Your task to perform on an android device: open chrome privacy settings Image 0: 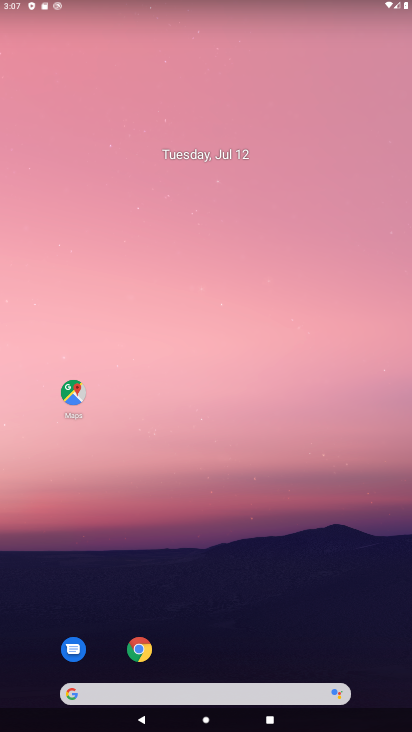
Step 0: drag from (238, 655) to (205, 95)
Your task to perform on an android device: open chrome privacy settings Image 1: 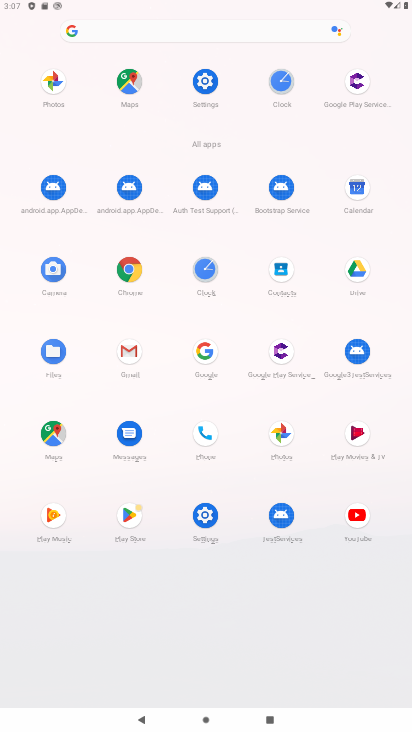
Step 1: click (125, 265)
Your task to perform on an android device: open chrome privacy settings Image 2: 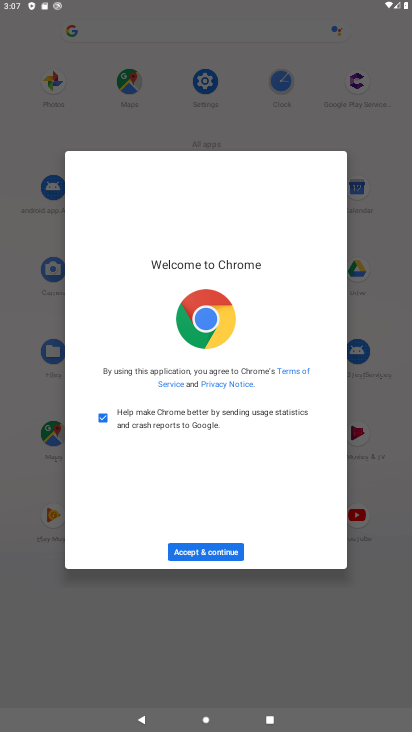
Step 2: click (198, 545)
Your task to perform on an android device: open chrome privacy settings Image 3: 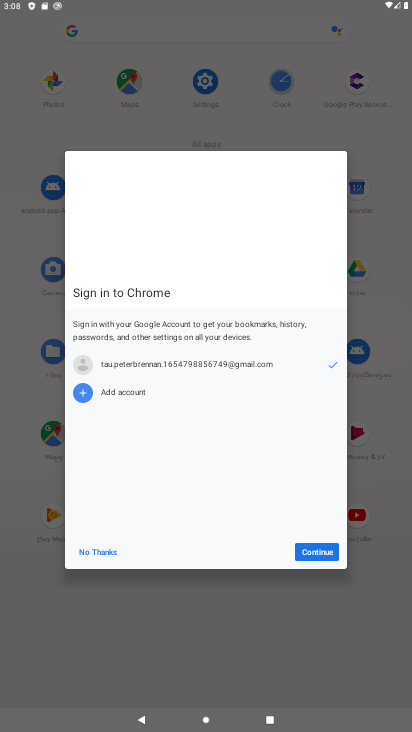
Step 3: click (316, 549)
Your task to perform on an android device: open chrome privacy settings Image 4: 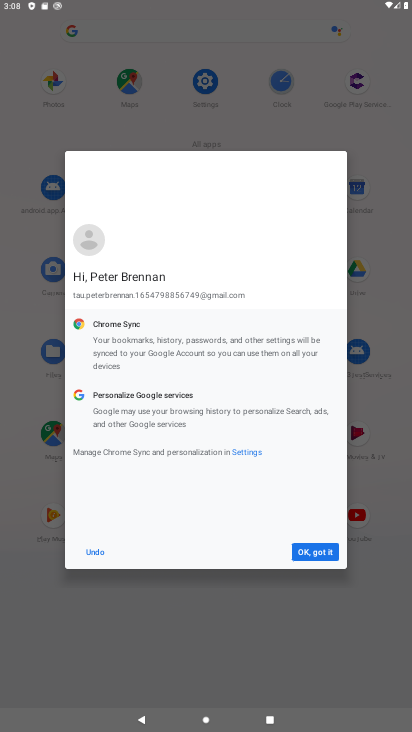
Step 4: click (316, 549)
Your task to perform on an android device: open chrome privacy settings Image 5: 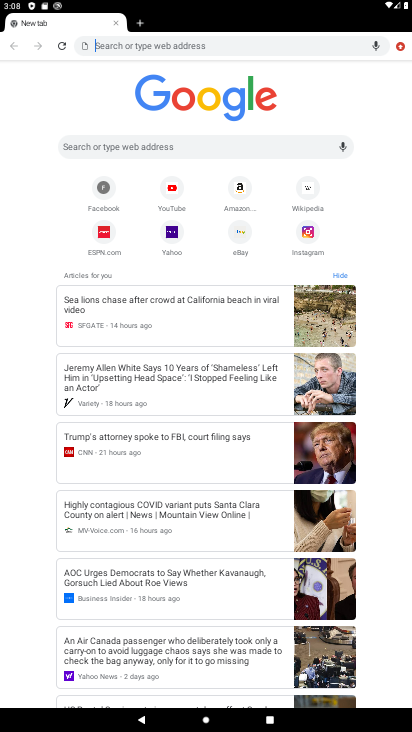
Step 5: click (401, 43)
Your task to perform on an android device: open chrome privacy settings Image 6: 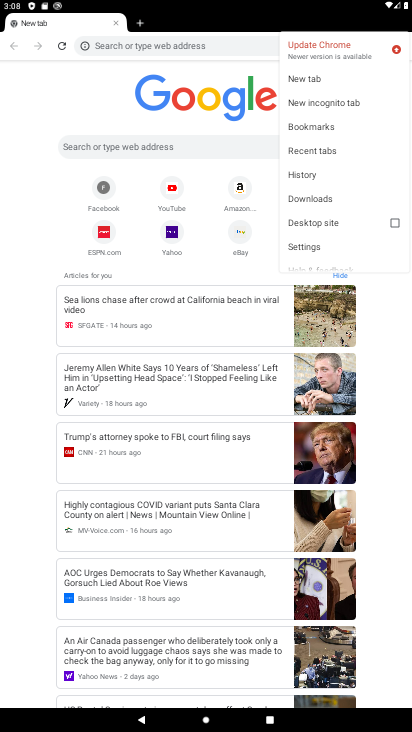
Step 6: click (325, 242)
Your task to perform on an android device: open chrome privacy settings Image 7: 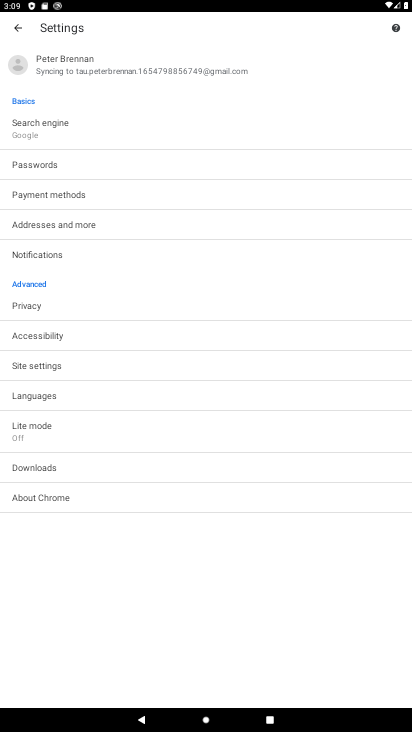
Step 7: click (59, 300)
Your task to perform on an android device: open chrome privacy settings Image 8: 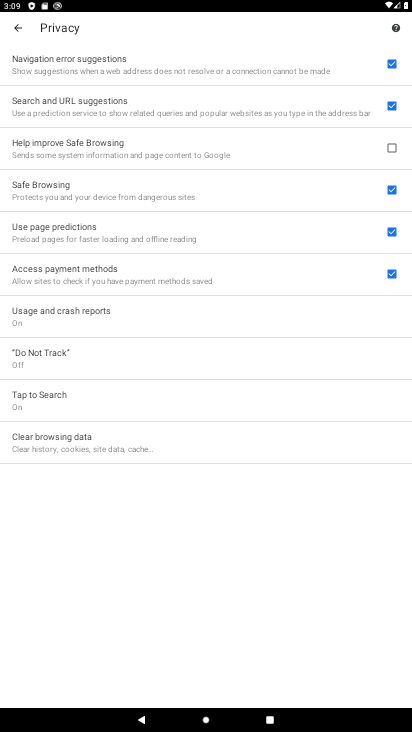
Step 8: task complete